Your task to perform on an android device: turn on wifi Image 0: 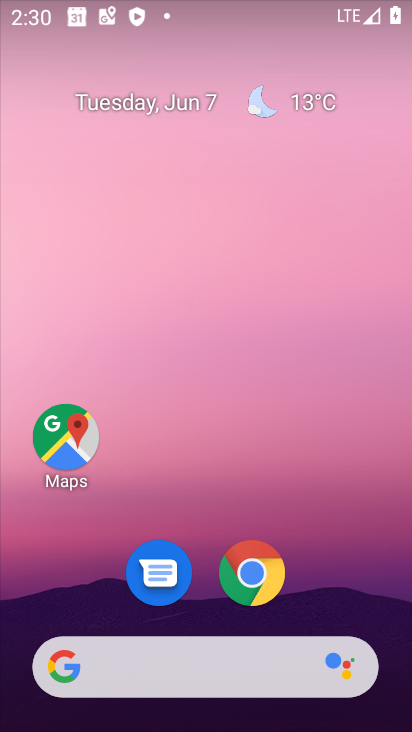
Step 0: drag from (316, 610) to (330, 0)
Your task to perform on an android device: turn on wifi Image 1: 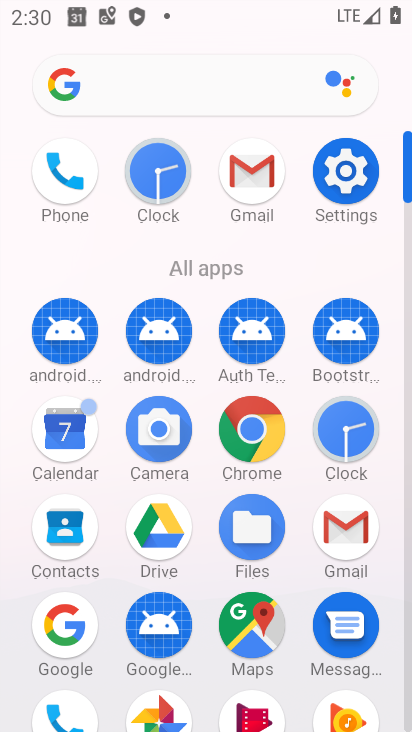
Step 1: click (344, 170)
Your task to perform on an android device: turn on wifi Image 2: 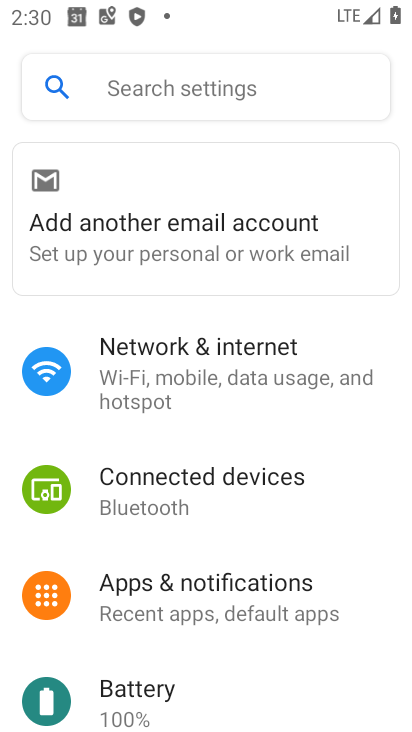
Step 2: click (162, 366)
Your task to perform on an android device: turn on wifi Image 3: 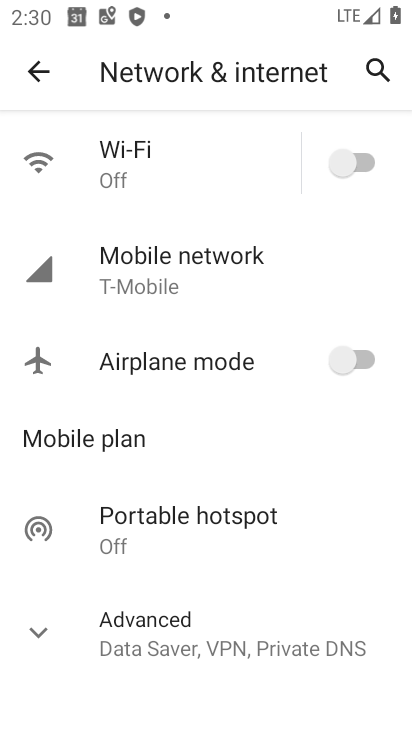
Step 3: click (349, 170)
Your task to perform on an android device: turn on wifi Image 4: 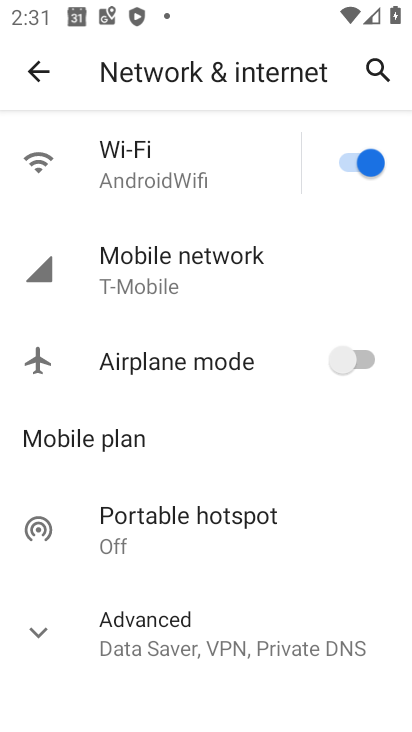
Step 4: task complete